Your task to perform on an android device: turn off data saver in the chrome app Image 0: 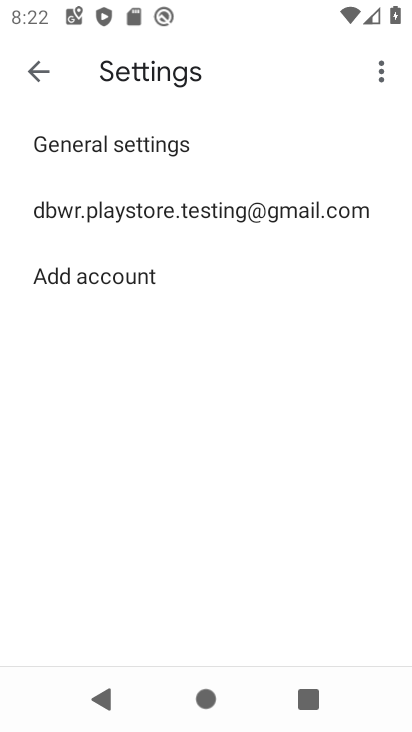
Step 0: press home button
Your task to perform on an android device: turn off data saver in the chrome app Image 1: 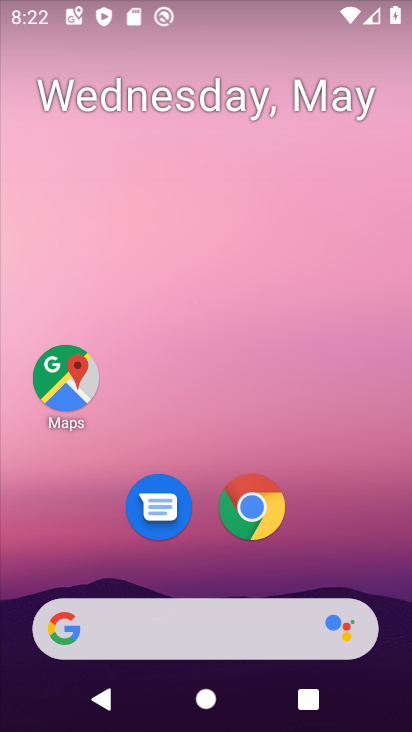
Step 1: click (244, 489)
Your task to perform on an android device: turn off data saver in the chrome app Image 2: 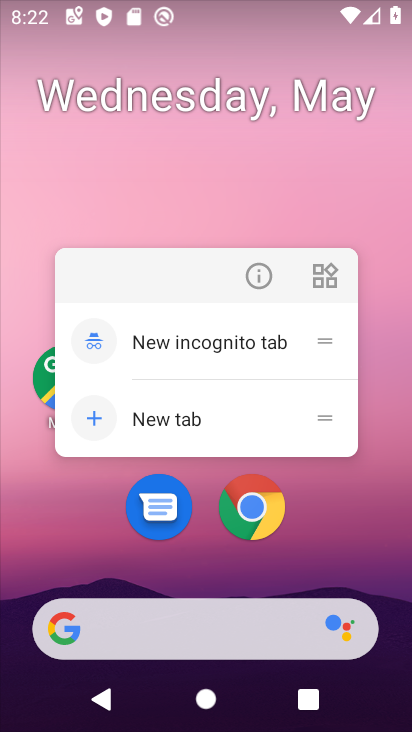
Step 2: click (245, 493)
Your task to perform on an android device: turn off data saver in the chrome app Image 3: 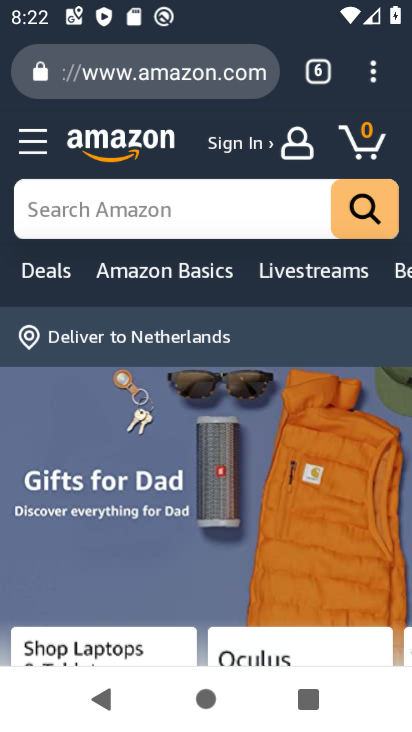
Step 3: click (366, 68)
Your task to perform on an android device: turn off data saver in the chrome app Image 4: 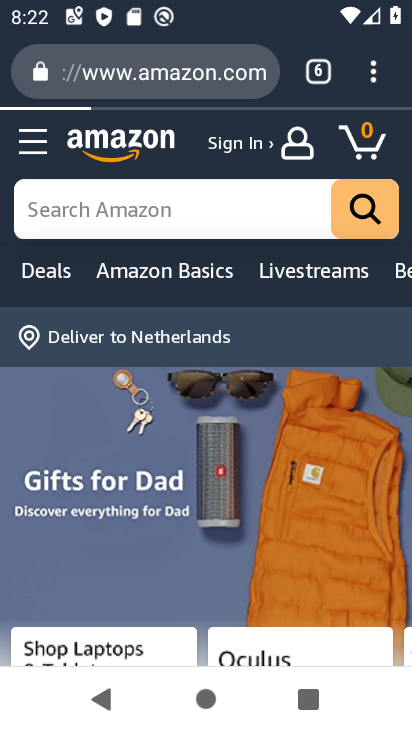
Step 4: click (379, 42)
Your task to perform on an android device: turn off data saver in the chrome app Image 5: 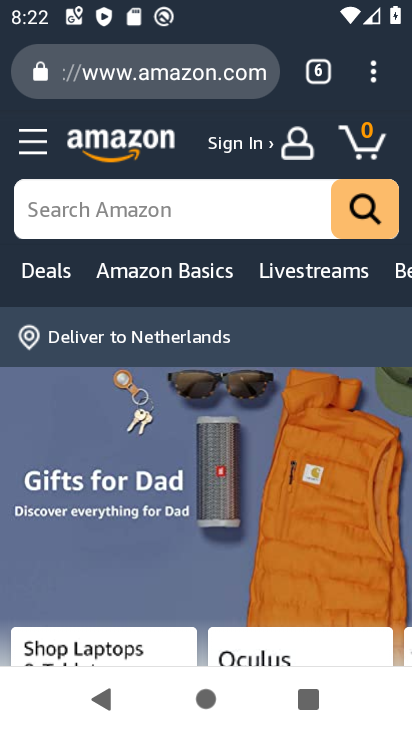
Step 5: click (374, 81)
Your task to perform on an android device: turn off data saver in the chrome app Image 6: 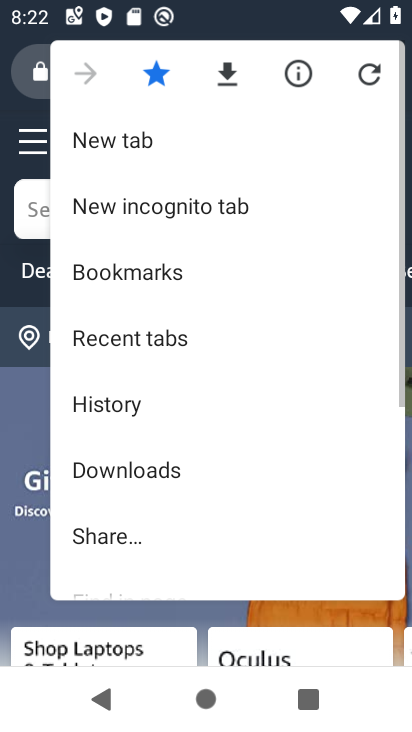
Step 6: drag from (129, 496) to (184, 216)
Your task to perform on an android device: turn off data saver in the chrome app Image 7: 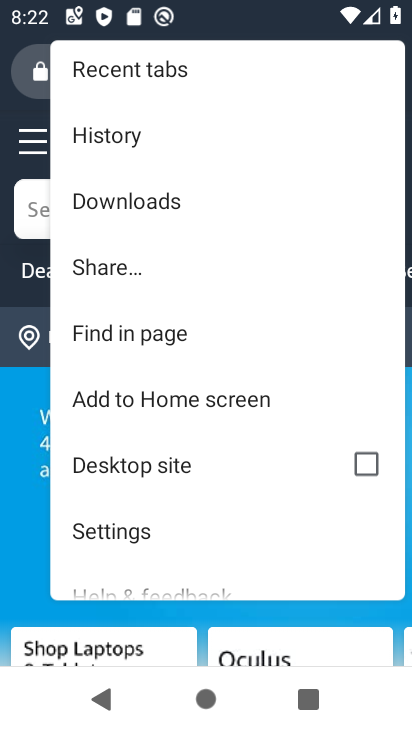
Step 7: click (124, 543)
Your task to perform on an android device: turn off data saver in the chrome app Image 8: 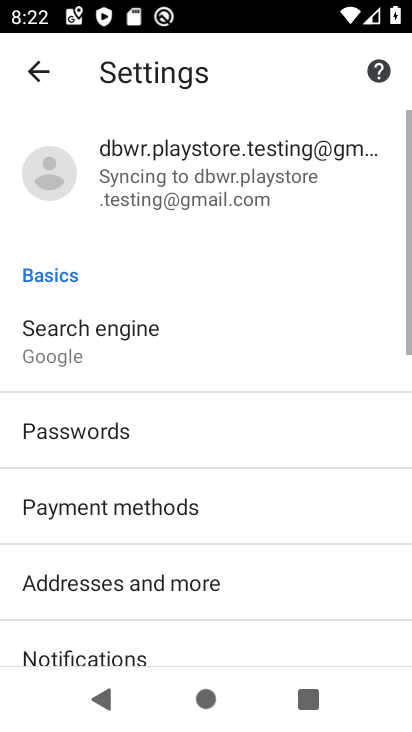
Step 8: drag from (244, 546) to (283, 230)
Your task to perform on an android device: turn off data saver in the chrome app Image 9: 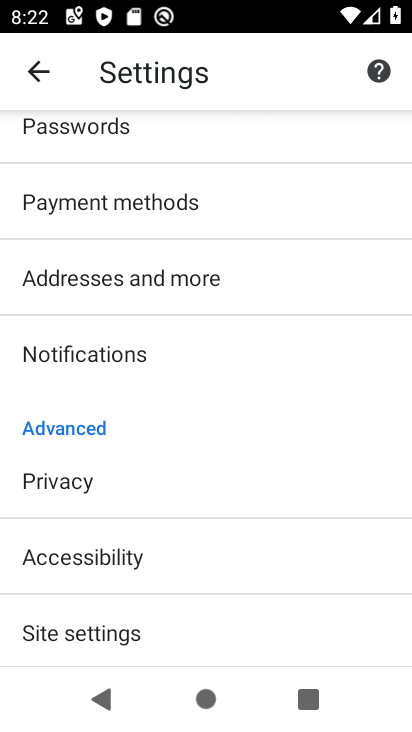
Step 9: drag from (183, 576) to (232, 297)
Your task to perform on an android device: turn off data saver in the chrome app Image 10: 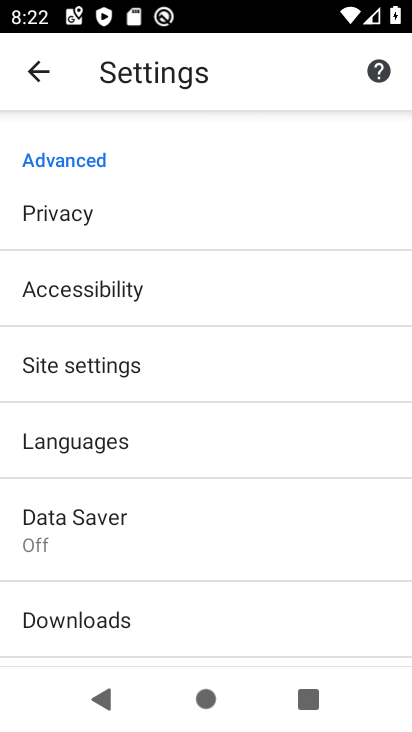
Step 10: click (113, 548)
Your task to perform on an android device: turn off data saver in the chrome app Image 11: 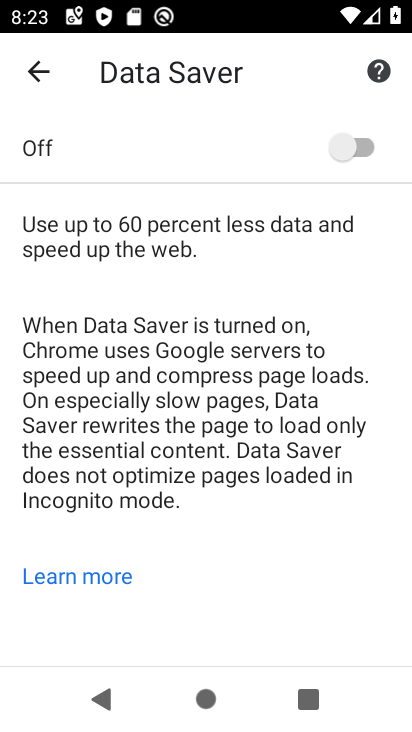
Step 11: task complete